Your task to perform on an android device: see creations saved in the google photos Image 0: 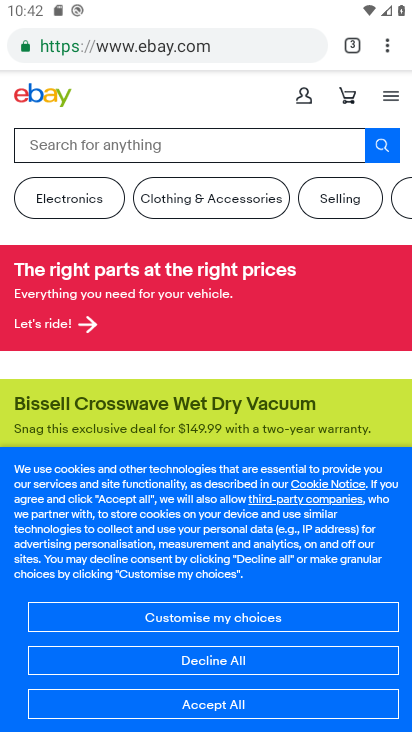
Step 0: press back button
Your task to perform on an android device: see creations saved in the google photos Image 1: 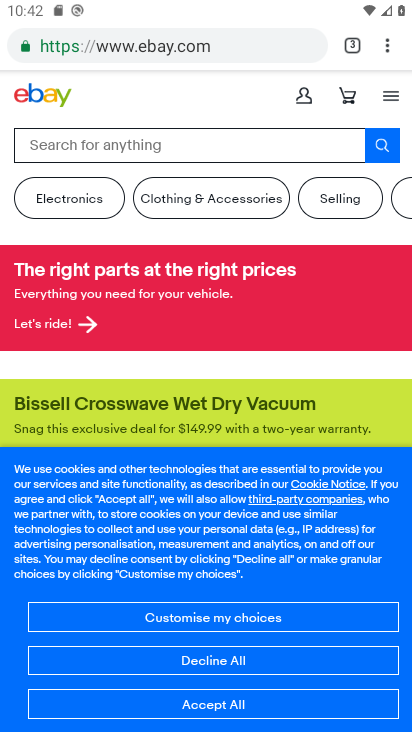
Step 1: press back button
Your task to perform on an android device: see creations saved in the google photos Image 2: 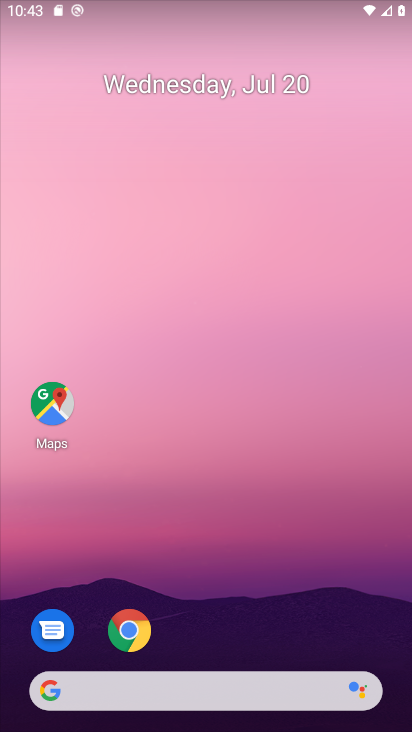
Step 2: drag from (237, 472) to (213, 84)
Your task to perform on an android device: see creations saved in the google photos Image 3: 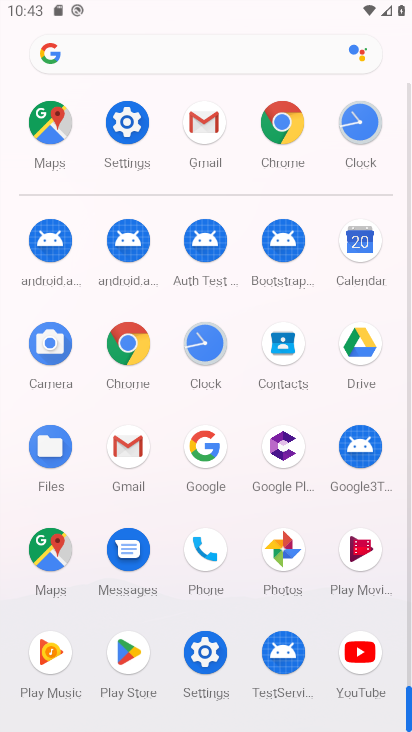
Step 3: click (286, 541)
Your task to perform on an android device: see creations saved in the google photos Image 4: 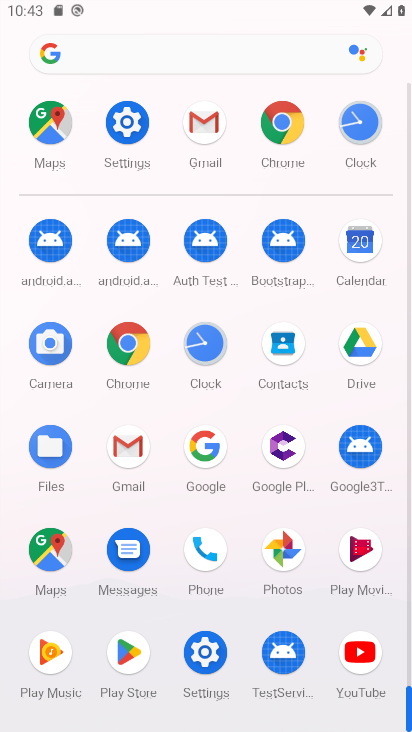
Step 4: click (279, 550)
Your task to perform on an android device: see creations saved in the google photos Image 5: 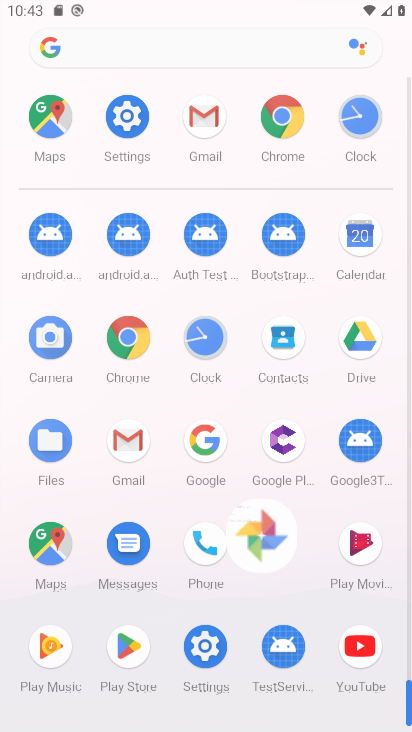
Step 5: click (278, 554)
Your task to perform on an android device: see creations saved in the google photos Image 6: 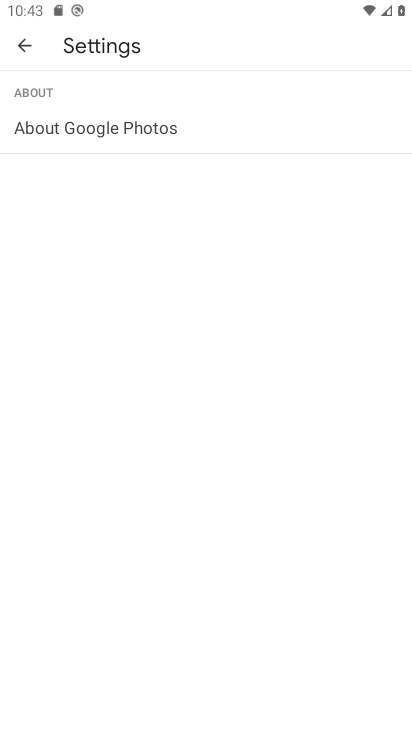
Step 6: click (23, 42)
Your task to perform on an android device: see creations saved in the google photos Image 7: 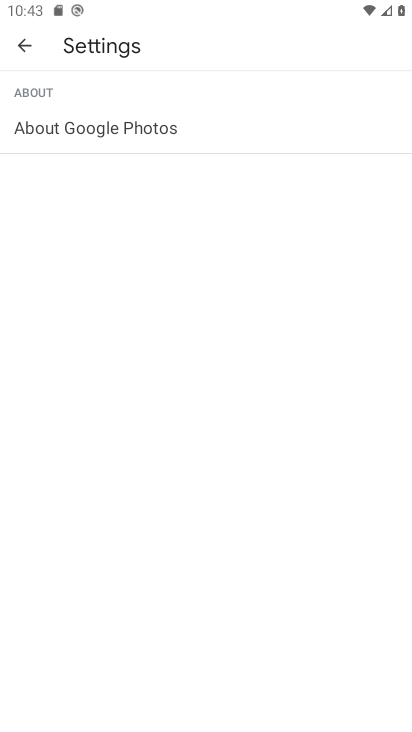
Step 7: click (28, 40)
Your task to perform on an android device: see creations saved in the google photos Image 8: 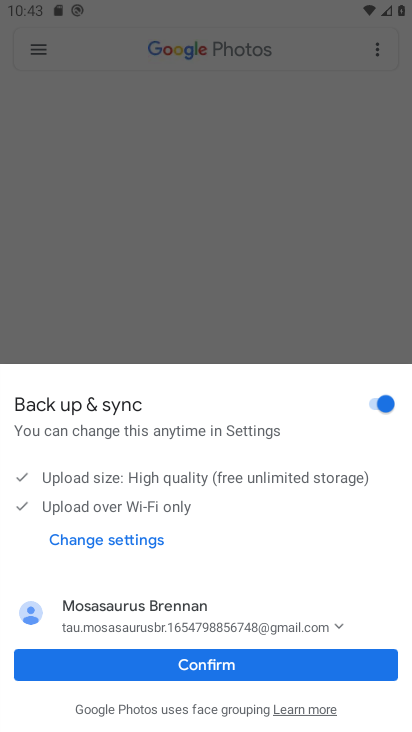
Step 8: click (202, 659)
Your task to perform on an android device: see creations saved in the google photos Image 9: 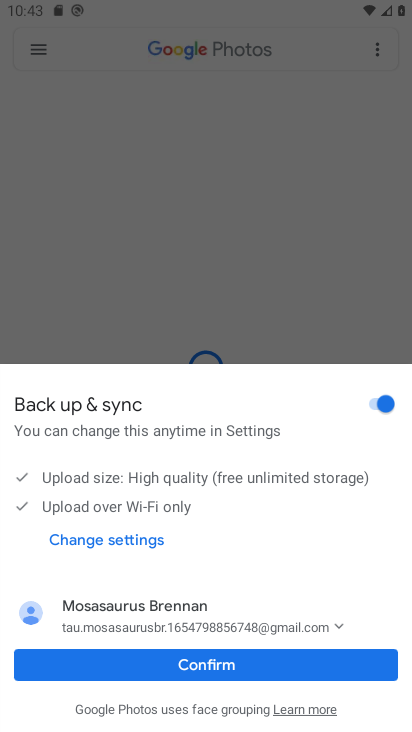
Step 9: click (203, 660)
Your task to perform on an android device: see creations saved in the google photos Image 10: 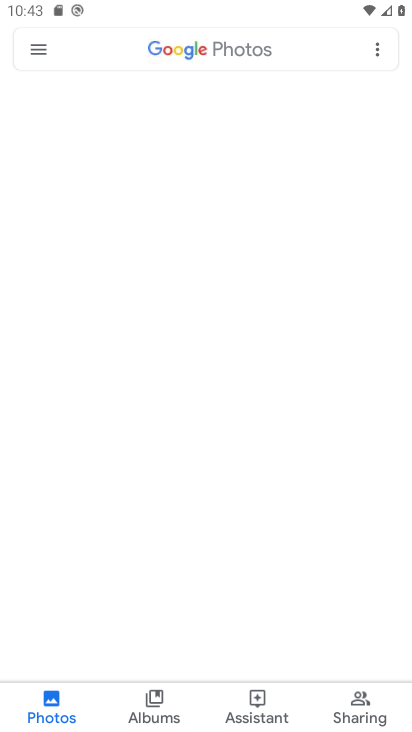
Step 10: click (208, 663)
Your task to perform on an android device: see creations saved in the google photos Image 11: 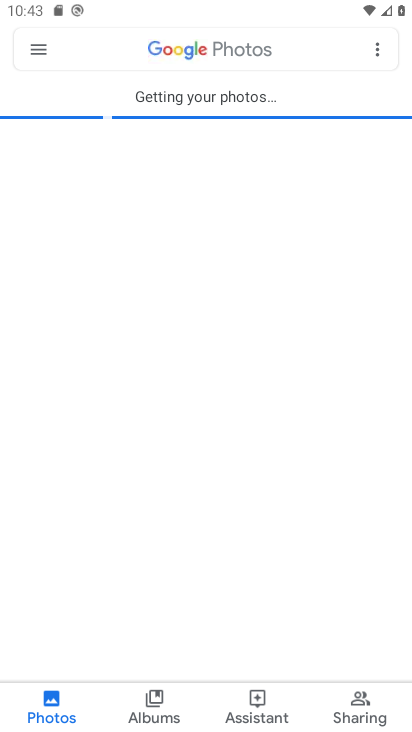
Step 11: click (214, 663)
Your task to perform on an android device: see creations saved in the google photos Image 12: 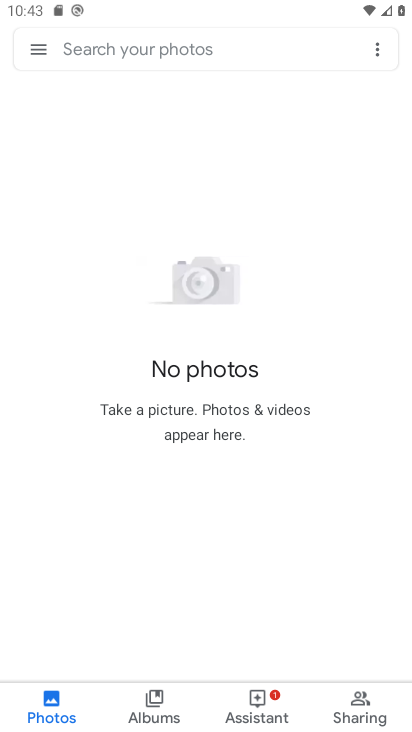
Step 12: task complete